Your task to perform on an android device: see tabs open on other devices in the chrome app Image 0: 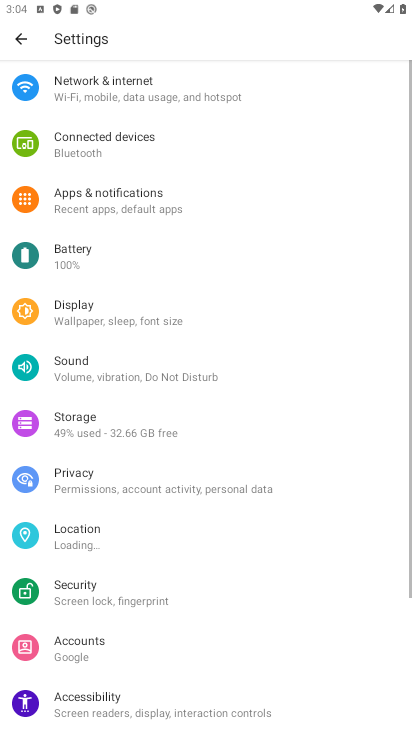
Step 0: press home button
Your task to perform on an android device: see tabs open on other devices in the chrome app Image 1: 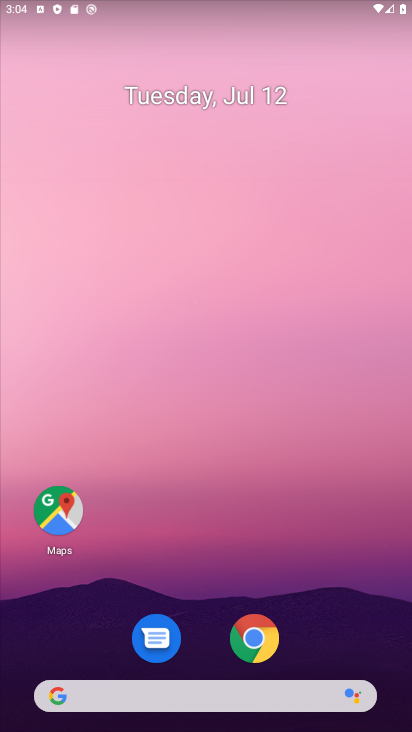
Step 1: click (266, 639)
Your task to perform on an android device: see tabs open on other devices in the chrome app Image 2: 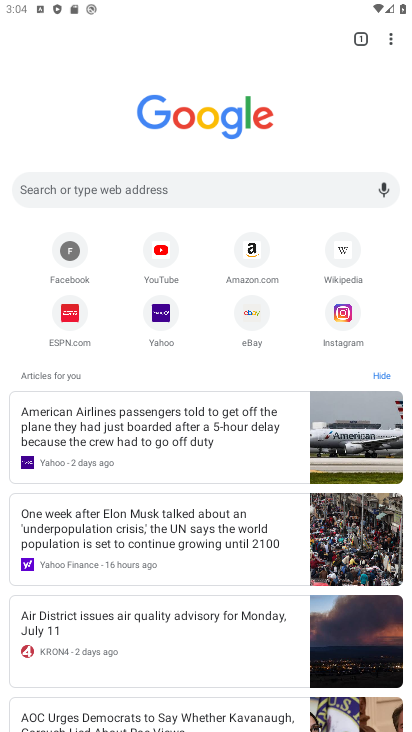
Step 2: click (397, 31)
Your task to perform on an android device: see tabs open on other devices in the chrome app Image 3: 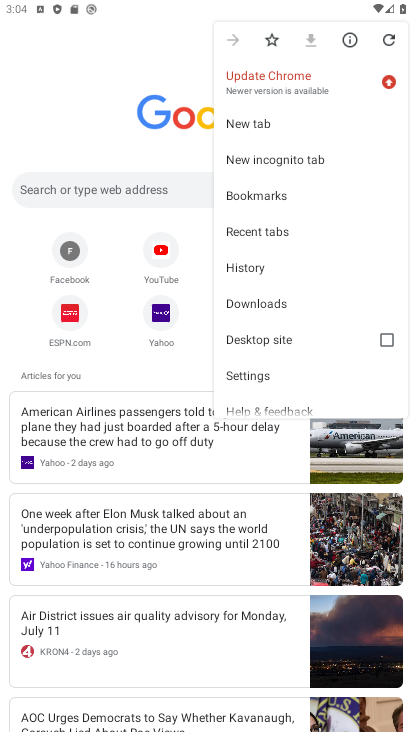
Step 3: click (291, 233)
Your task to perform on an android device: see tabs open on other devices in the chrome app Image 4: 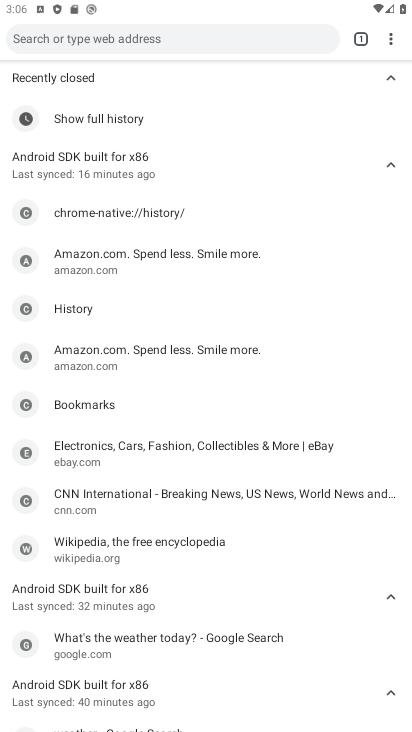
Step 4: task complete